Your task to perform on an android device: Go to network settings Image 0: 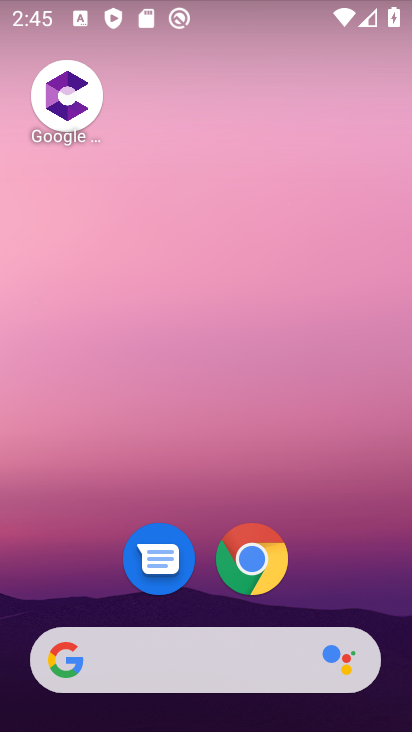
Step 0: drag from (331, 580) to (342, 102)
Your task to perform on an android device: Go to network settings Image 1: 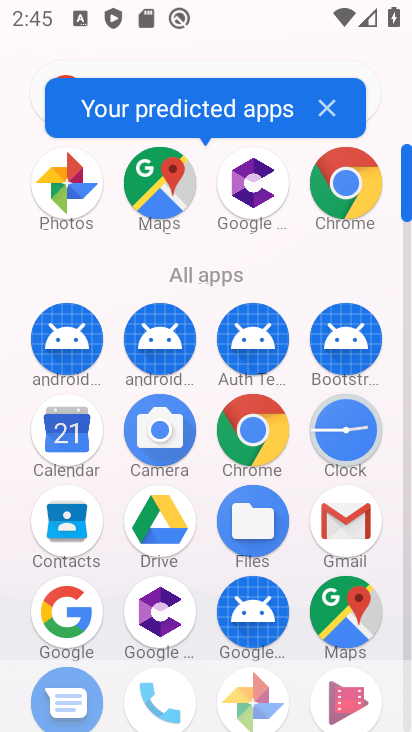
Step 1: drag from (206, 503) to (236, 149)
Your task to perform on an android device: Go to network settings Image 2: 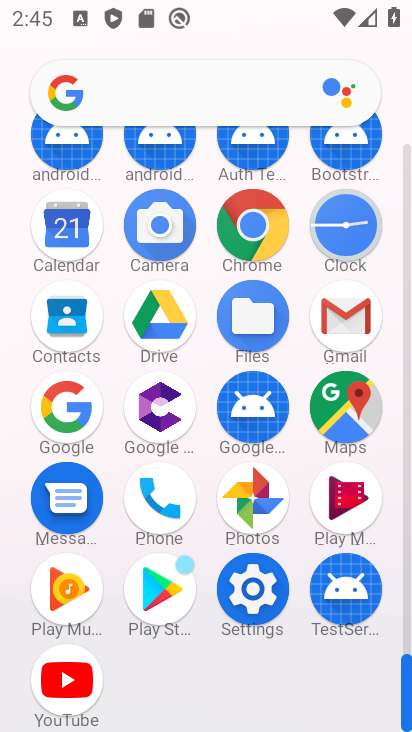
Step 2: click (258, 594)
Your task to perform on an android device: Go to network settings Image 3: 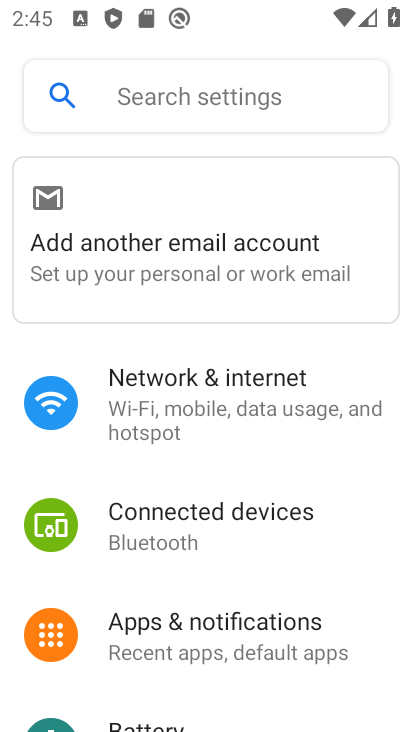
Step 3: click (209, 412)
Your task to perform on an android device: Go to network settings Image 4: 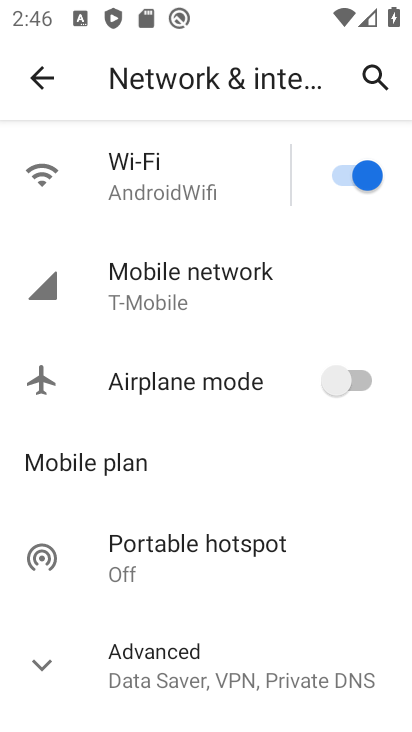
Step 4: task complete